Your task to perform on an android device: Open sound settings Image 0: 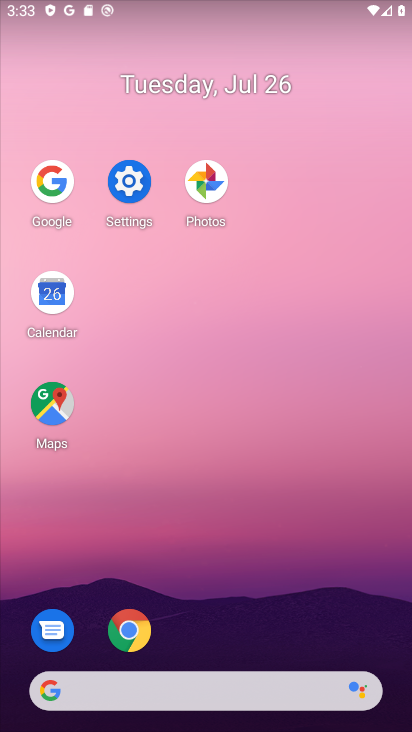
Step 0: click (117, 185)
Your task to perform on an android device: Open sound settings Image 1: 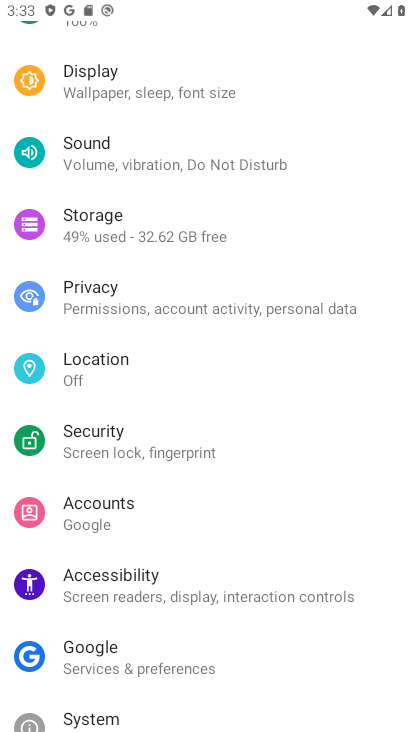
Step 1: click (137, 170)
Your task to perform on an android device: Open sound settings Image 2: 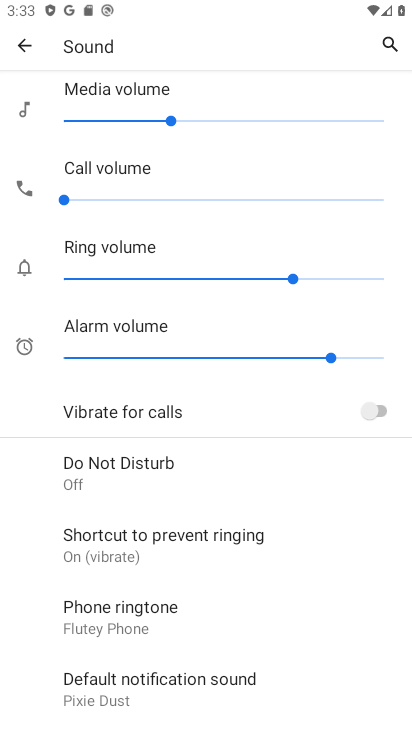
Step 2: task complete